Your task to perform on an android device: Open accessibility settings Image 0: 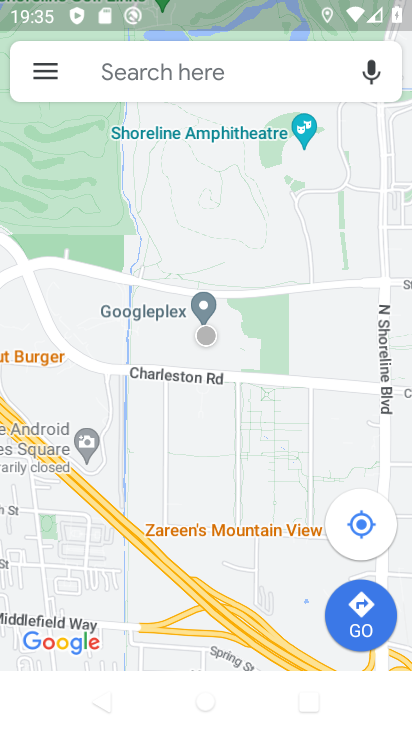
Step 0: press home button
Your task to perform on an android device: Open accessibility settings Image 1: 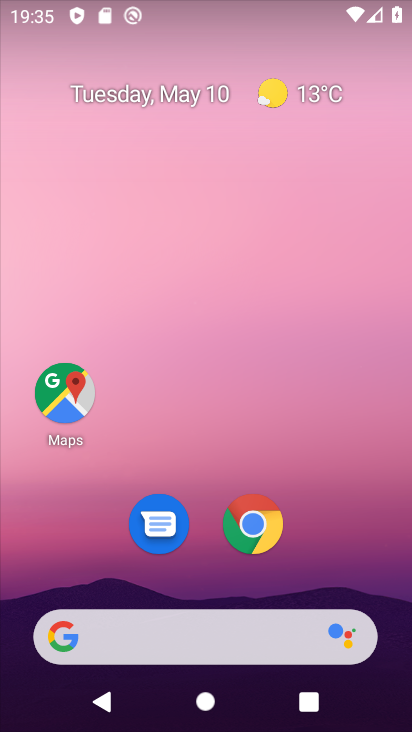
Step 1: drag from (205, 562) to (238, 51)
Your task to perform on an android device: Open accessibility settings Image 2: 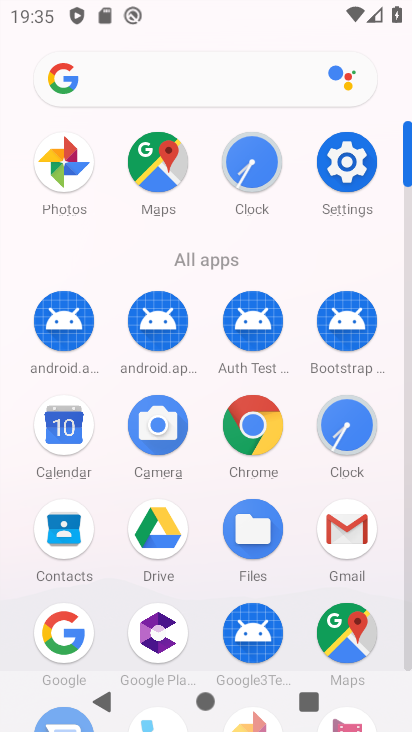
Step 2: click (340, 154)
Your task to perform on an android device: Open accessibility settings Image 3: 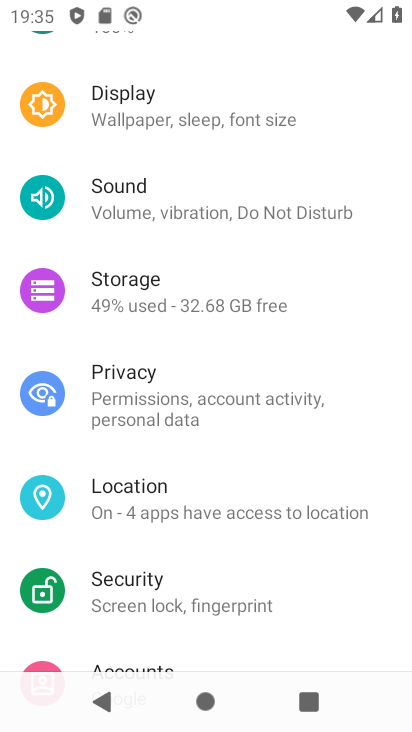
Step 3: drag from (239, 556) to (275, 221)
Your task to perform on an android device: Open accessibility settings Image 4: 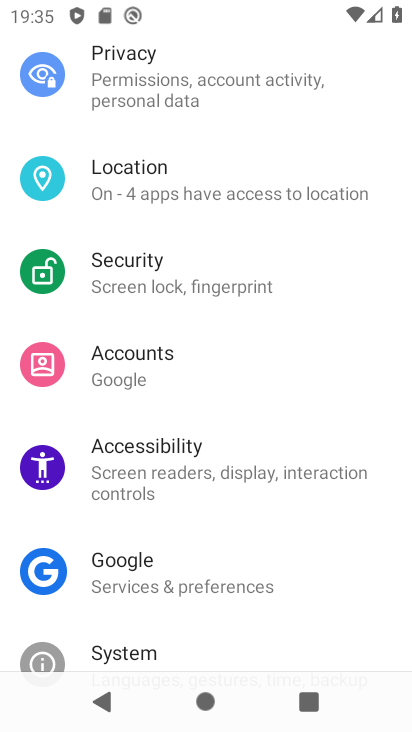
Step 4: click (233, 468)
Your task to perform on an android device: Open accessibility settings Image 5: 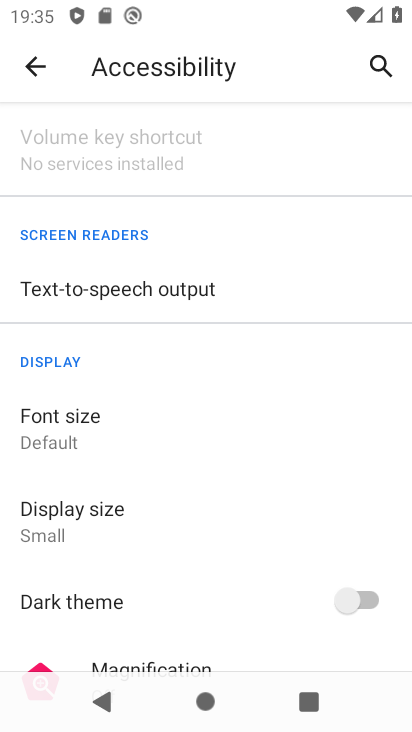
Step 5: task complete